Your task to perform on an android device: choose inbox layout in the gmail app Image 0: 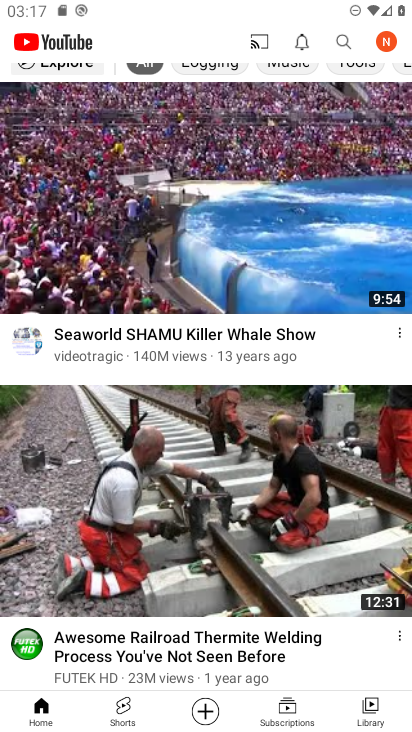
Step 0: press home button
Your task to perform on an android device: choose inbox layout in the gmail app Image 1: 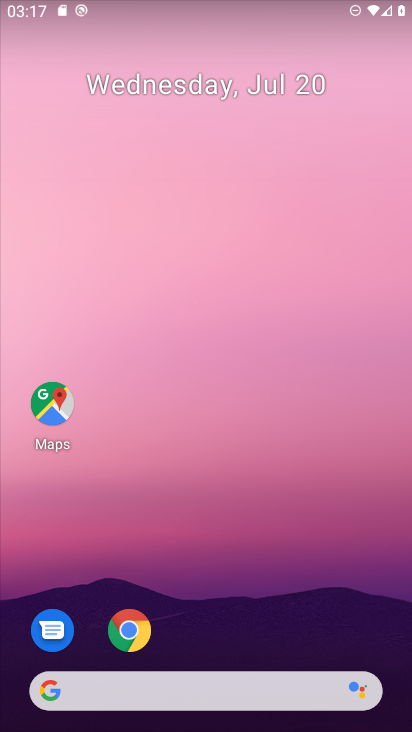
Step 1: drag from (348, 575) to (349, 94)
Your task to perform on an android device: choose inbox layout in the gmail app Image 2: 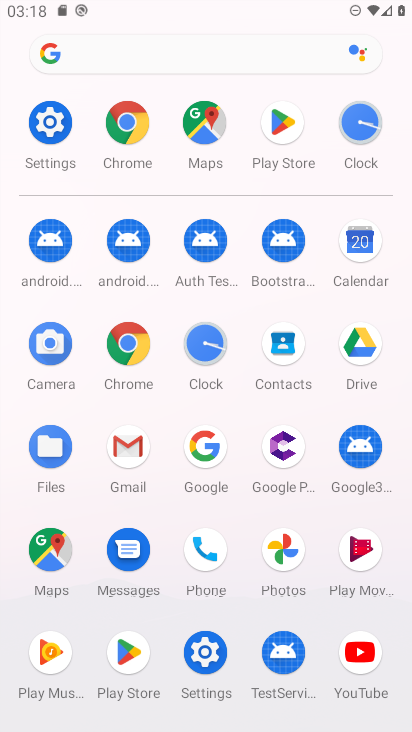
Step 2: click (135, 449)
Your task to perform on an android device: choose inbox layout in the gmail app Image 3: 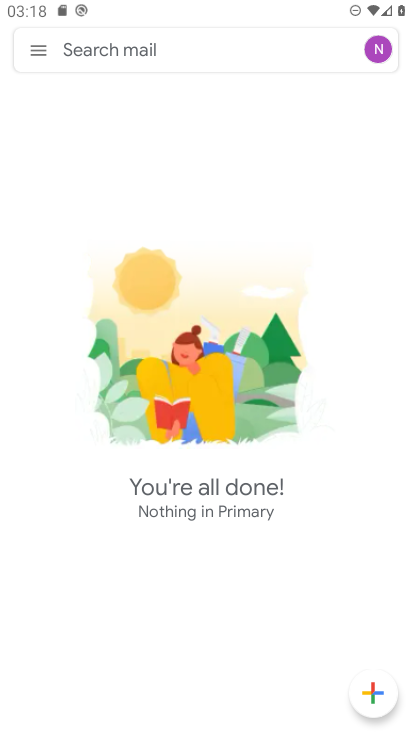
Step 3: click (36, 50)
Your task to perform on an android device: choose inbox layout in the gmail app Image 4: 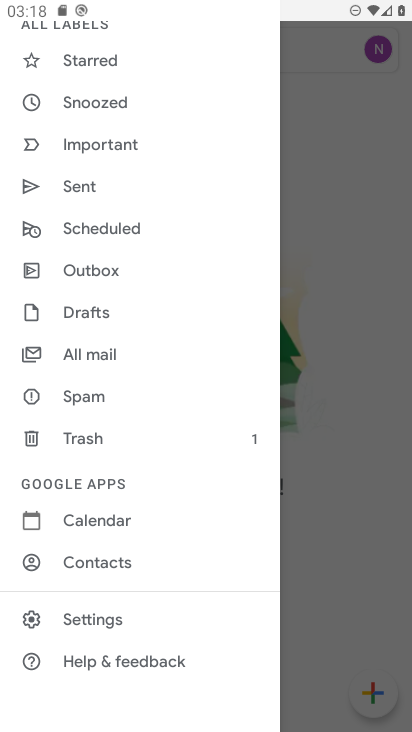
Step 4: click (98, 621)
Your task to perform on an android device: choose inbox layout in the gmail app Image 5: 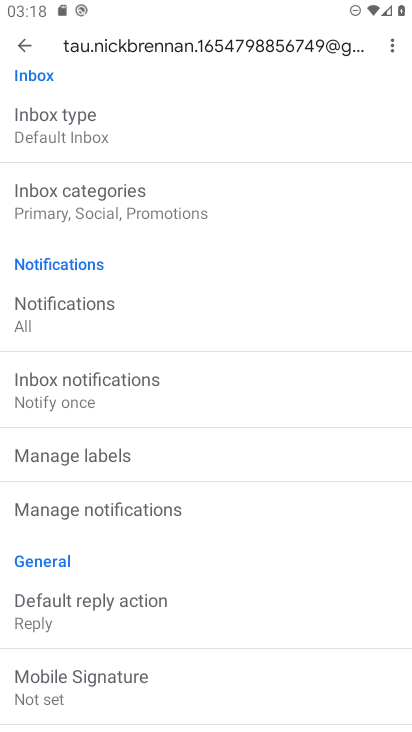
Step 5: drag from (267, 248) to (268, 354)
Your task to perform on an android device: choose inbox layout in the gmail app Image 6: 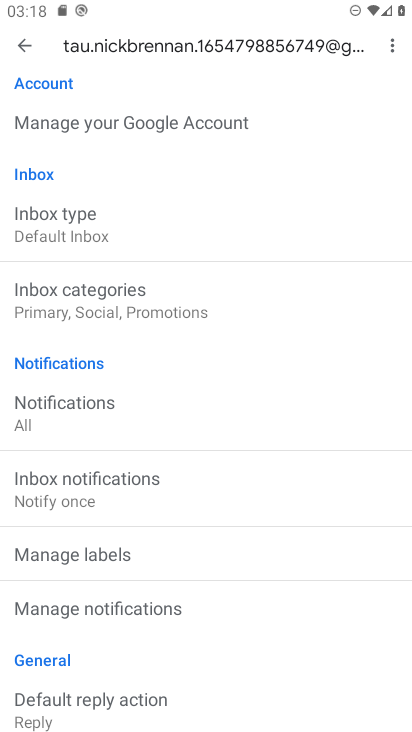
Step 6: drag from (284, 220) to (281, 344)
Your task to perform on an android device: choose inbox layout in the gmail app Image 7: 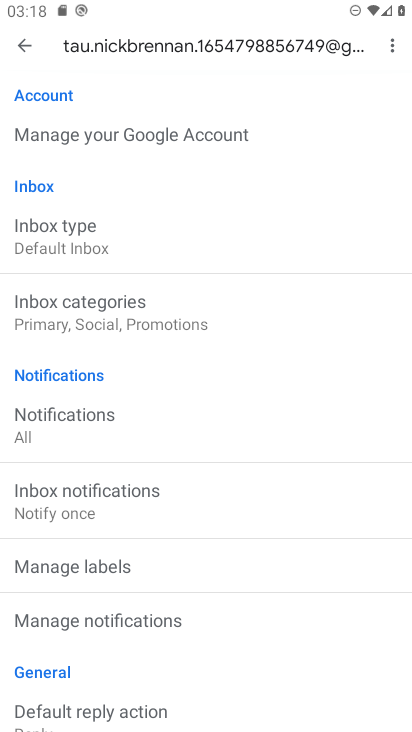
Step 7: click (123, 235)
Your task to perform on an android device: choose inbox layout in the gmail app Image 8: 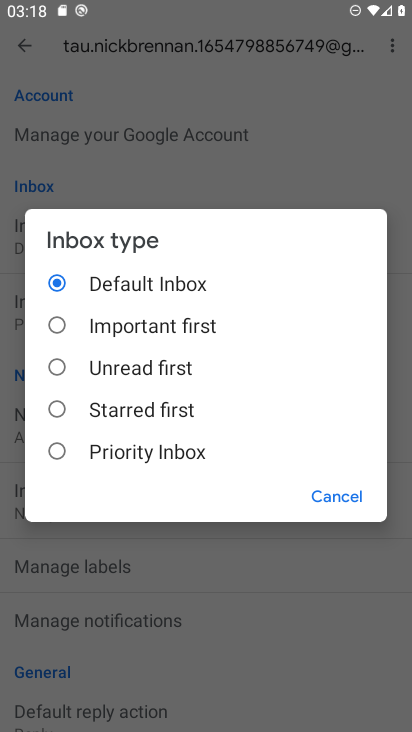
Step 8: click (138, 371)
Your task to perform on an android device: choose inbox layout in the gmail app Image 9: 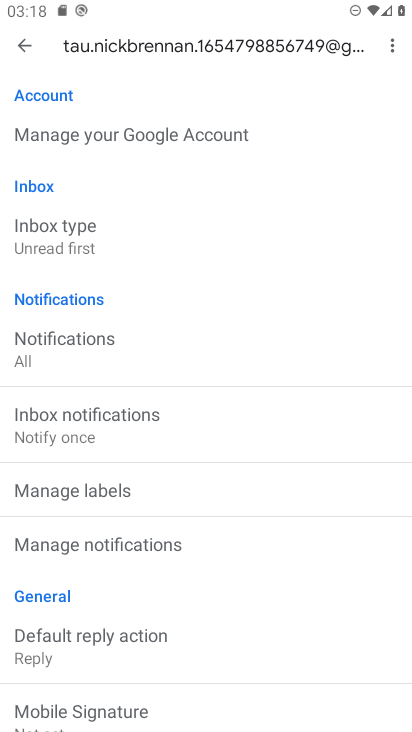
Step 9: task complete